Your task to perform on an android device: Search for pizza restaurants on Maps Image 0: 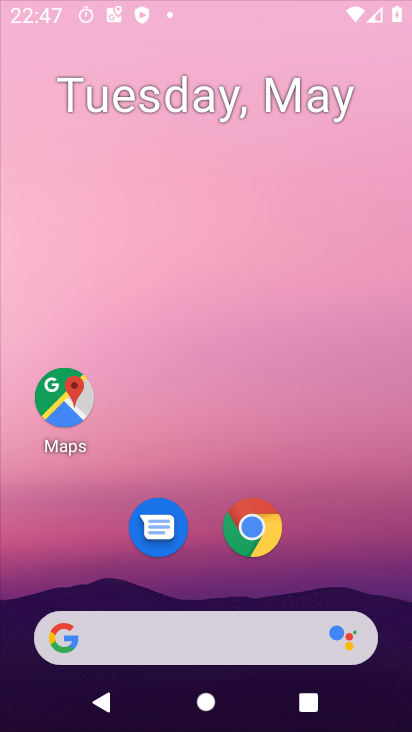
Step 0: drag from (22, 456) to (263, 1)
Your task to perform on an android device: Search for pizza restaurants on Maps Image 1: 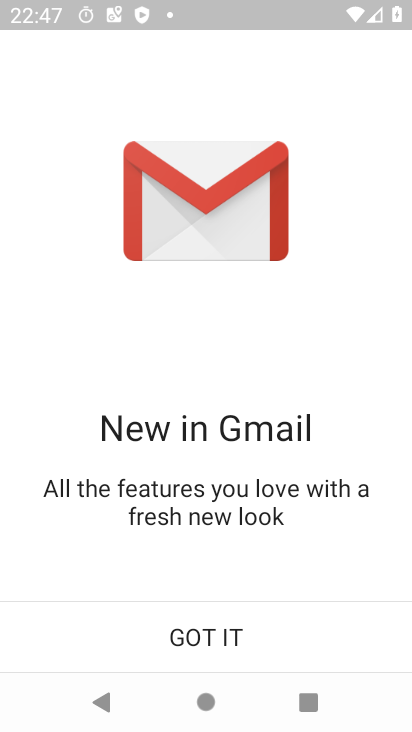
Step 1: click (177, 656)
Your task to perform on an android device: Search for pizza restaurants on Maps Image 2: 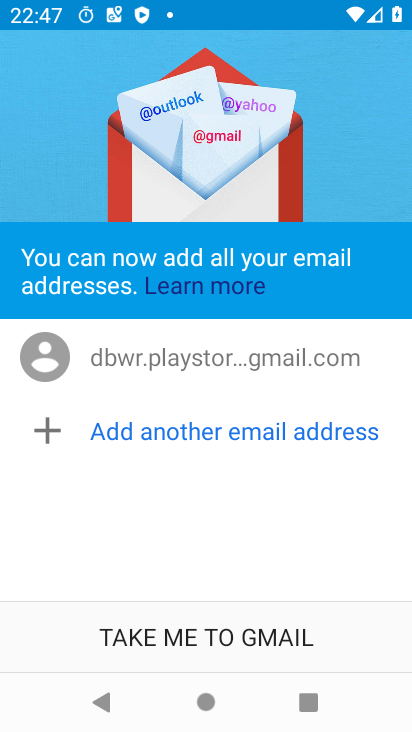
Step 2: drag from (249, 385) to (254, 208)
Your task to perform on an android device: Search for pizza restaurants on Maps Image 3: 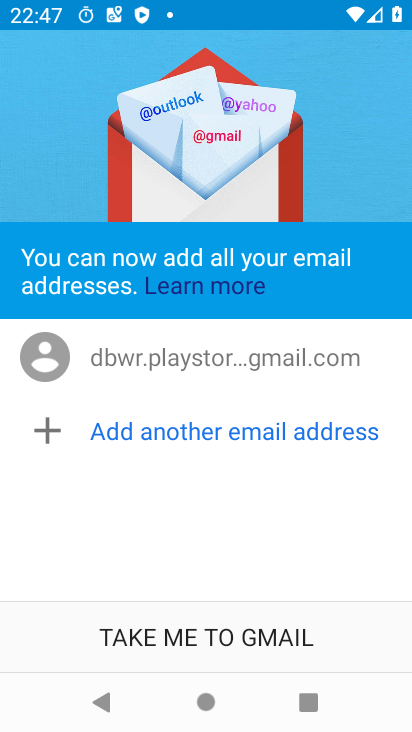
Step 3: click (186, 641)
Your task to perform on an android device: Search for pizza restaurants on Maps Image 4: 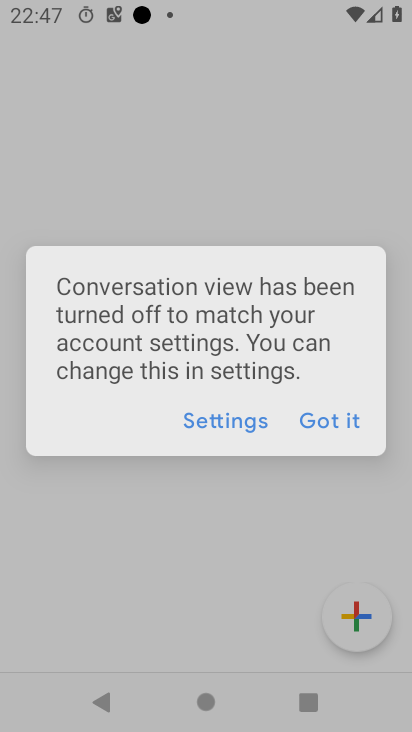
Step 4: press home button
Your task to perform on an android device: Search for pizza restaurants on Maps Image 5: 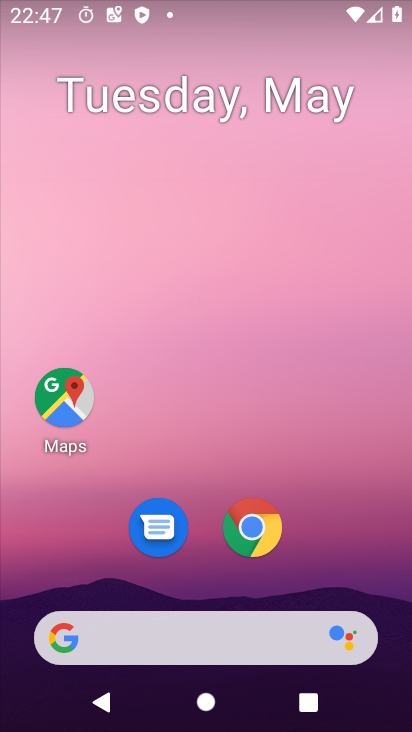
Step 5: click (84, 411)
Your task to perform on an android device: Search for pizza restaurants on Maps Image 6: 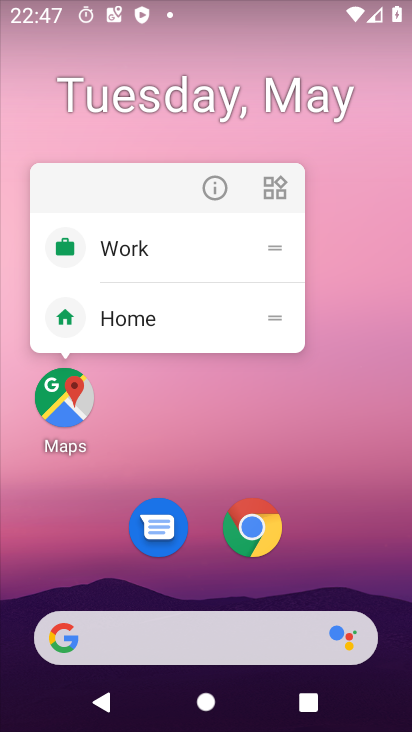
Step 6: click (228, 194)
Your task to perform on an android device: Search for pizza restaurants on Maps Image 7: 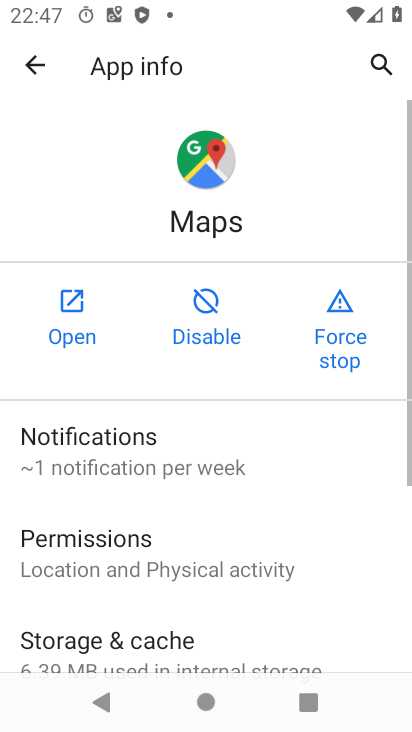
Step 7: click (79, 315)
Your task to perform on an android device: Search for pizza restaurants on Maps Image 8: 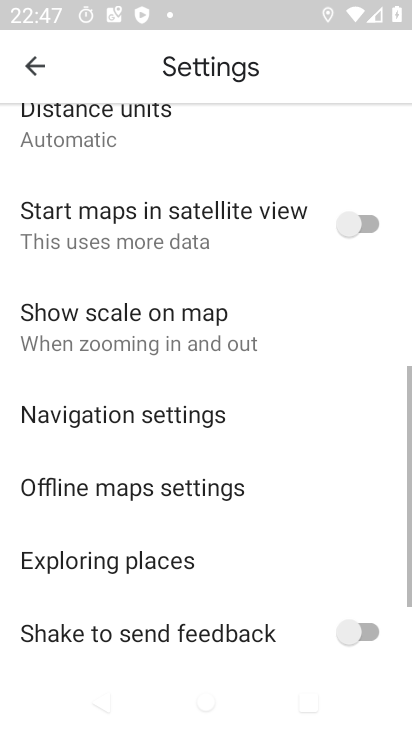
Step 8: drag from (185, 266) to (312, 731)
Your task to perform on an android device: Search for pizza restaurants on Maps Image 9: 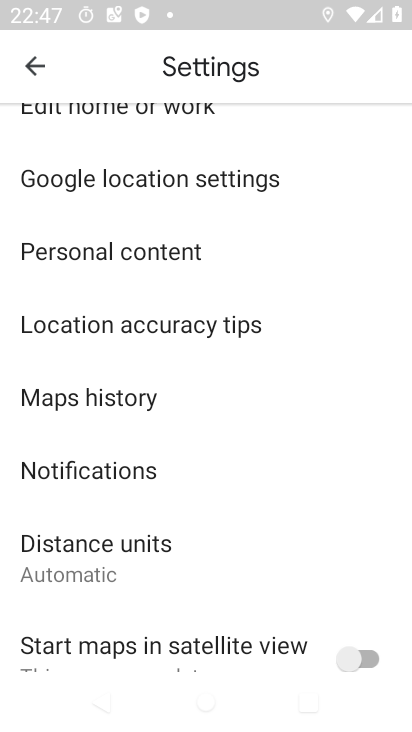
Step 9: drag from (201, 253) to (287, 731)
Your task to perform on an android device: Search for pizza restaurants on Maps Image 10: 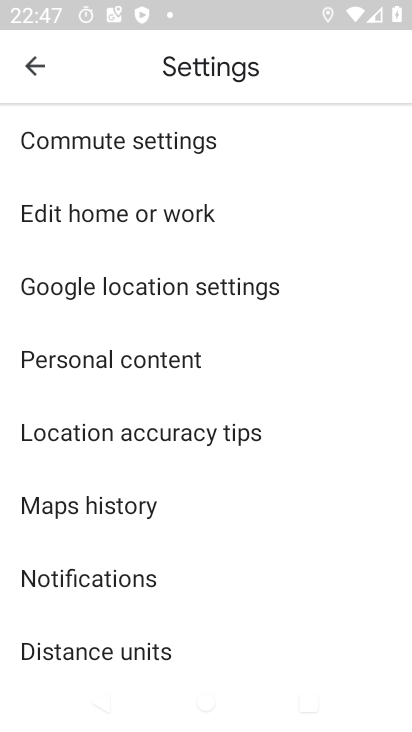
Step 10: click (41, 73)
Your task to perform on an android device: Search for pizza restaurants on Maps Image 11: 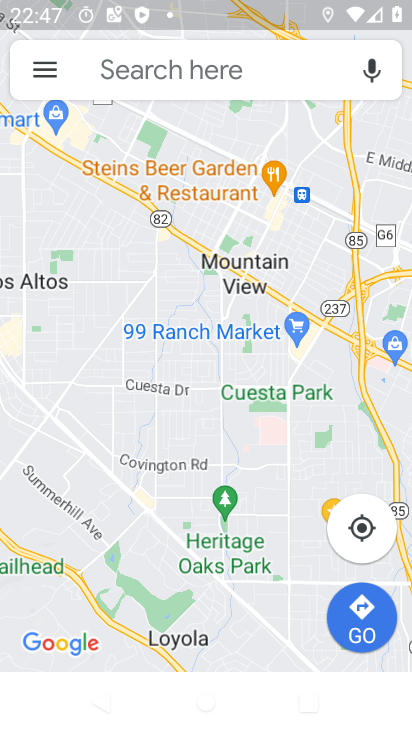
Step 11: click (45, 78)
Your task to perform on an android device: Search for pizza restaurants on Maps Image 12: 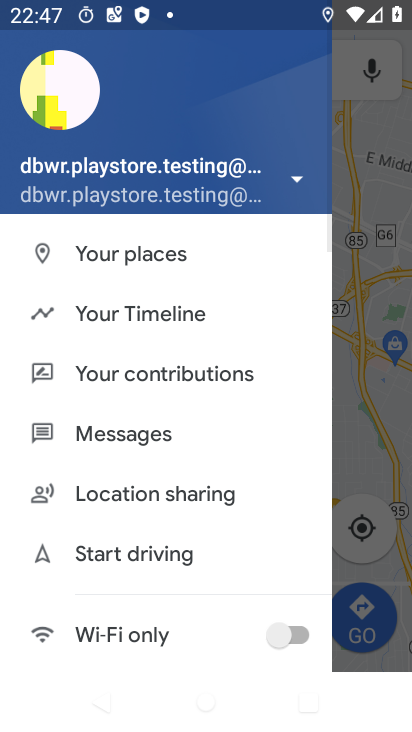
Step 12: drag from (104, 582) to (228, 45)
Your task to perform on an android device: Search for pizza restaurants on Maps Image 13: 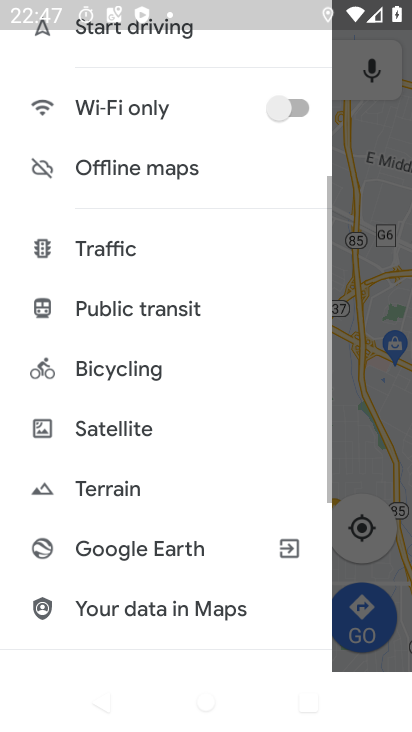
Step 13: drag from (171, 571) to (171, 301)
Your task to perform on an android device: Search for pizza restaurants on Maps Image 14: 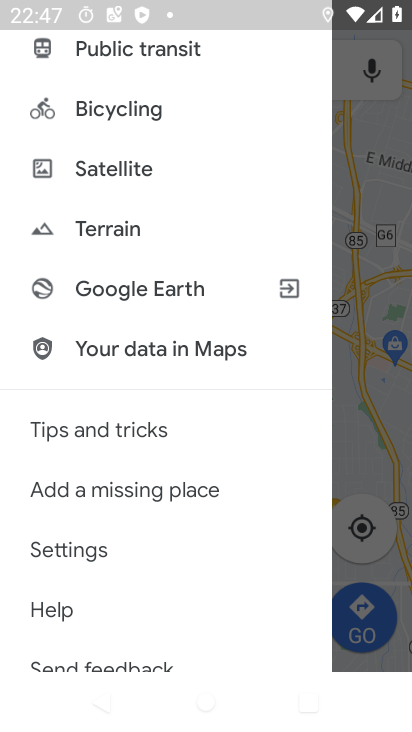
Step 14: drag from (142, 502) to (182, 289)
Your task to perform on an android device: Search for pizza restaurants on Maps Image 15: 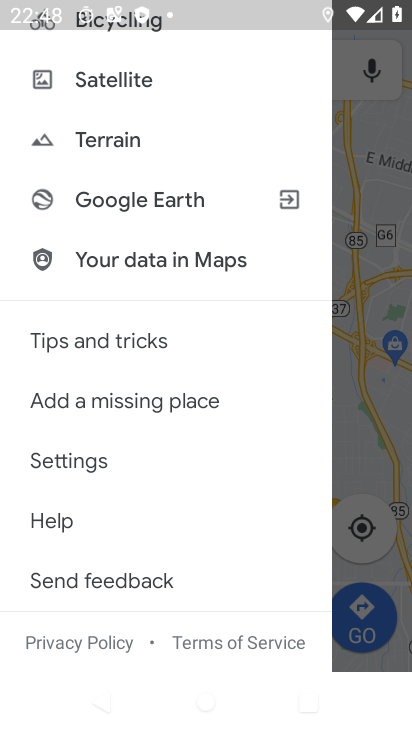
Step 15: click (90, 454)
Your task to perform on an android device: Search for pizza restaurants on Maps Image 16: 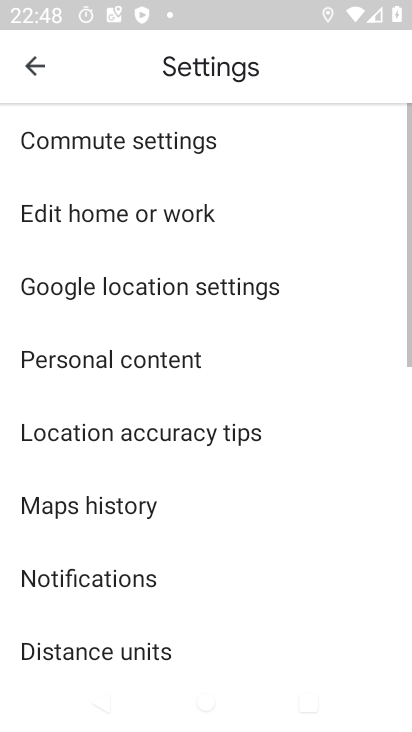
Step 16: drag from (174, 623) to (226, 193)
Your task to perform on an android device: Search for pizza restaurants on Maps Image 17: 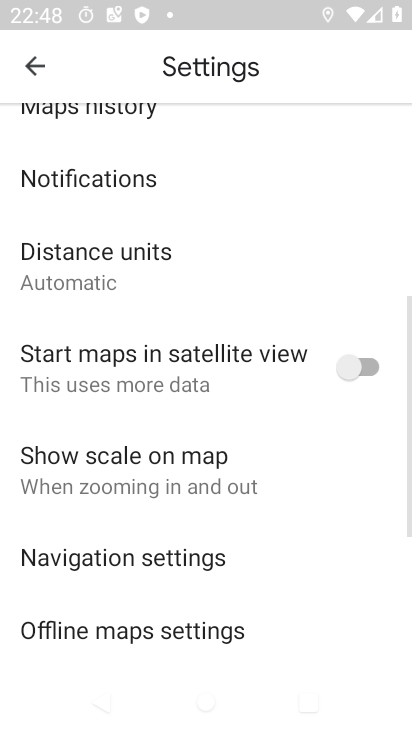
Step 17: drag from (222, 167) to (215, 564)
Your task to perform on an android device: Search for pizza restaurants on Maps Image 18: 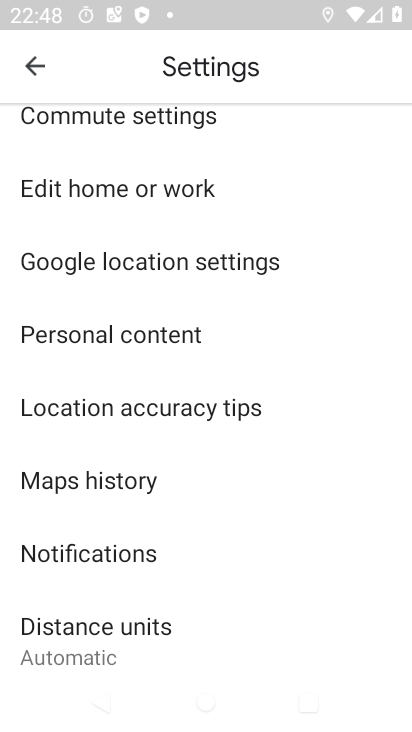
Step 18: click (39, 63)
Your task to perform on an android device: Search for pizza restaurants on Maps Image 19: 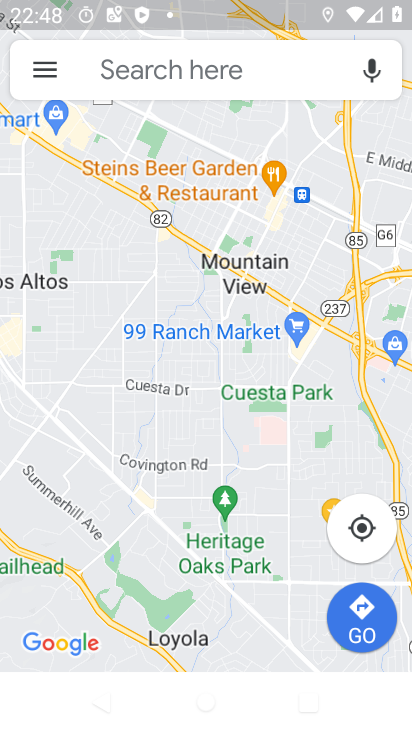
Step 19: click (163, 82)
Your task to perform on an android device: Search for pizza restaurants on Maps Image 20: 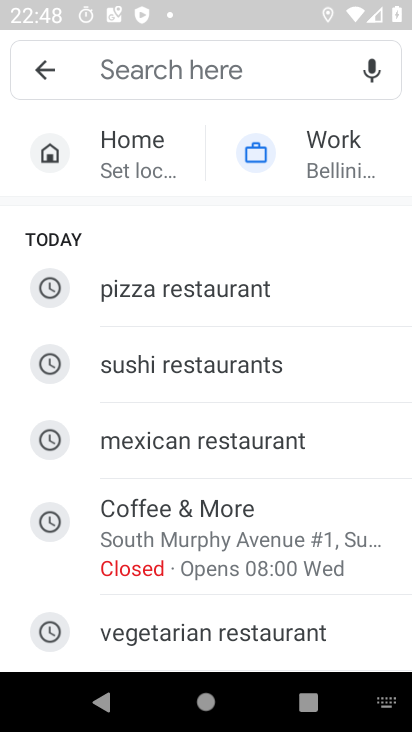
Step 20: click (207, 274)
Your task to perform on an android device: Search for pizza restaurants on Maps Image 21: 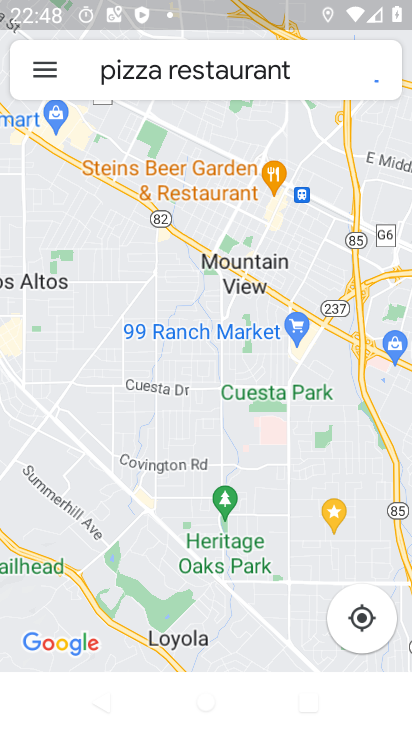
Step 21: task complete